Your task to perform on an android device: open app "Pluto TV - Live TV and Movies" (install if not already installed) Image 0: 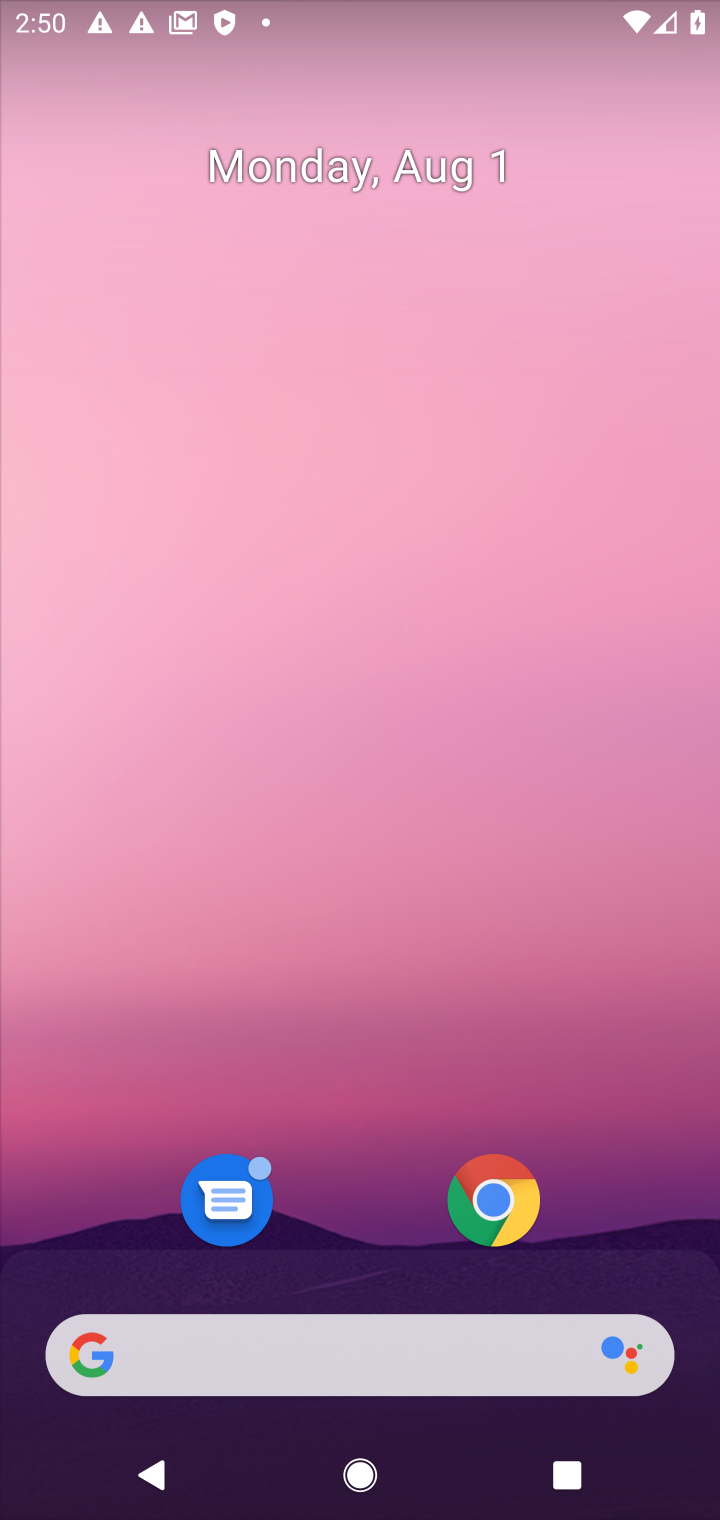
Step 0: drag from (391, 1258) to (472, 26)
Your task to perform on an android device: open app "Pluto TV - Live TV and Movies" (install if not already installed) Image 1: 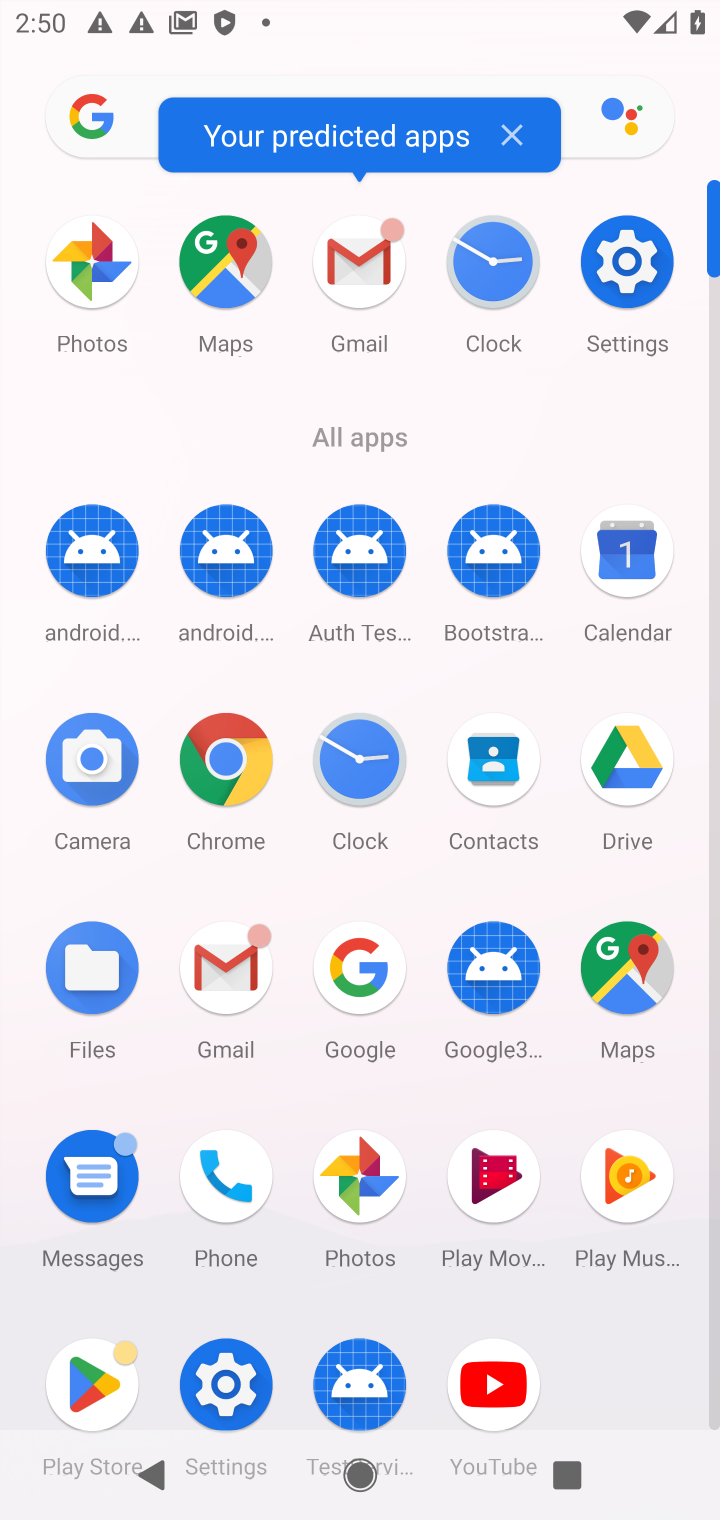
Step 1: click (82, 1368)
Your task to perform on an android device: open app "Pluto TV - Live TV and Movies" (install if not already installed) Image 2: 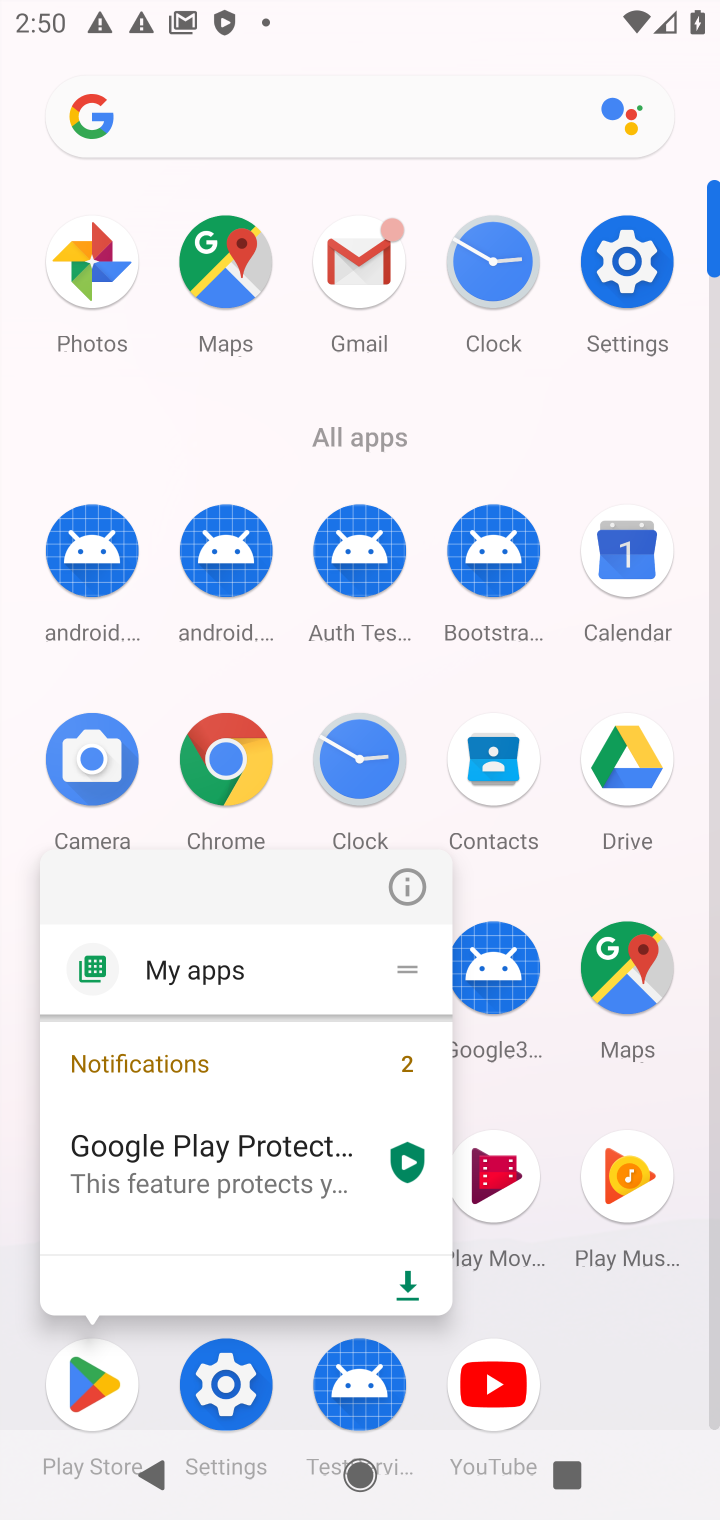
Step 2: click (75, 1380)
Your task to perform on an android device: open app "Pluto TV - Live TV and Movies" (install if not already installed) Image 3: 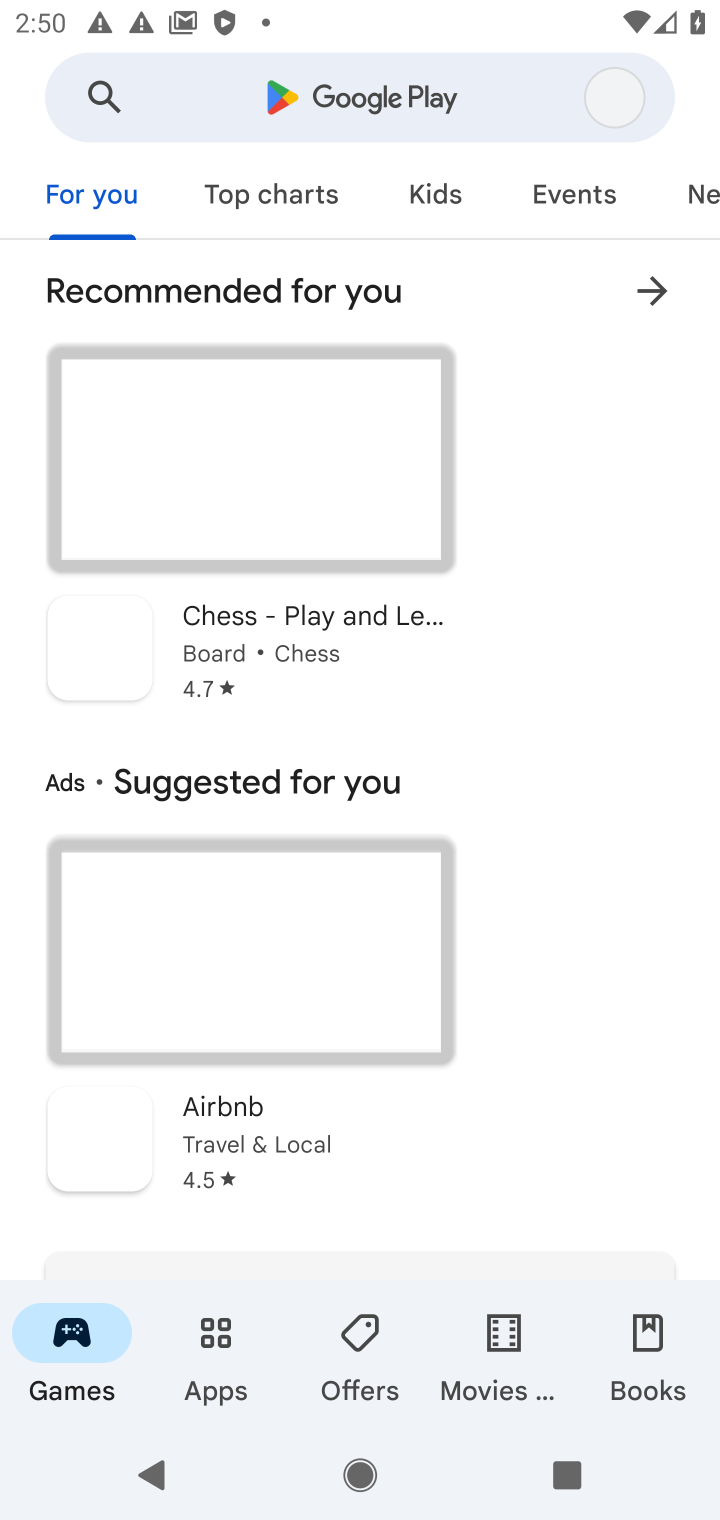
Step 3: click (359, 90)
Your task to perform on an android device: open app "Pluto TV - Live TV and Movies" (install if not already installed) Image 4: 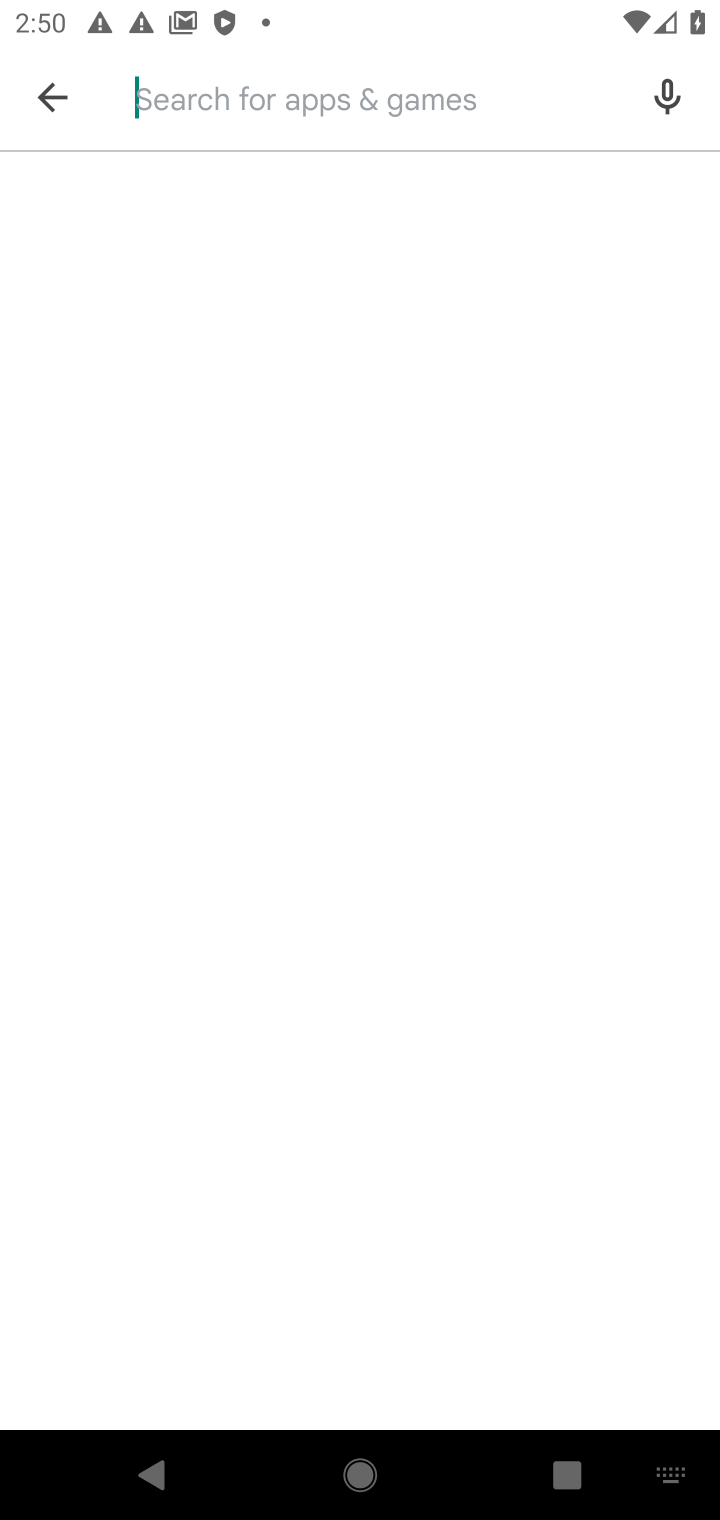
Step 4: type "pluto TV"
Your task to perform on an android device: open app "Pluto TV - Live TV and Movies" (install if not already installed) Image 5: 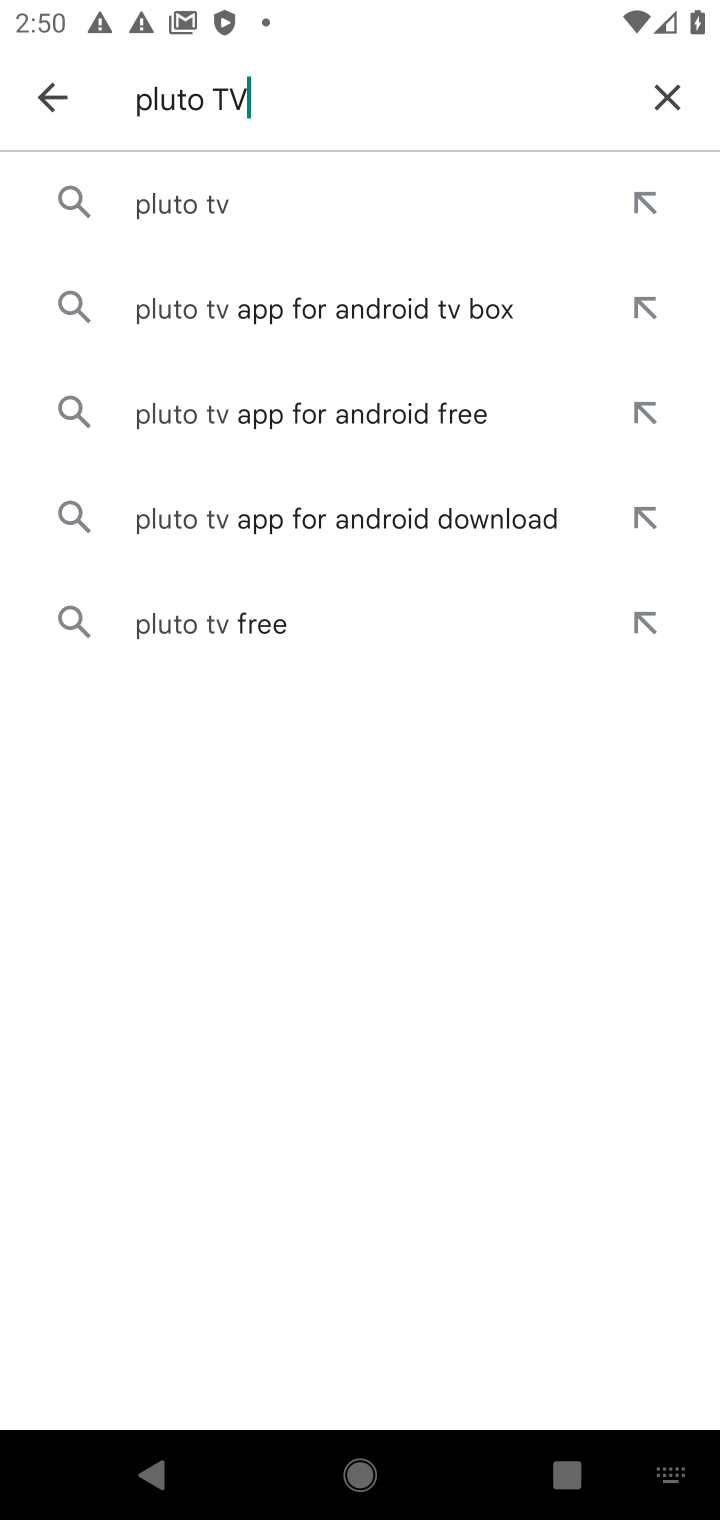
Step 5: click (177, 207)
Your task to perform on an android device: open app "Pluto TV - Live TV and Movies" (install if not already installed) Image 6: 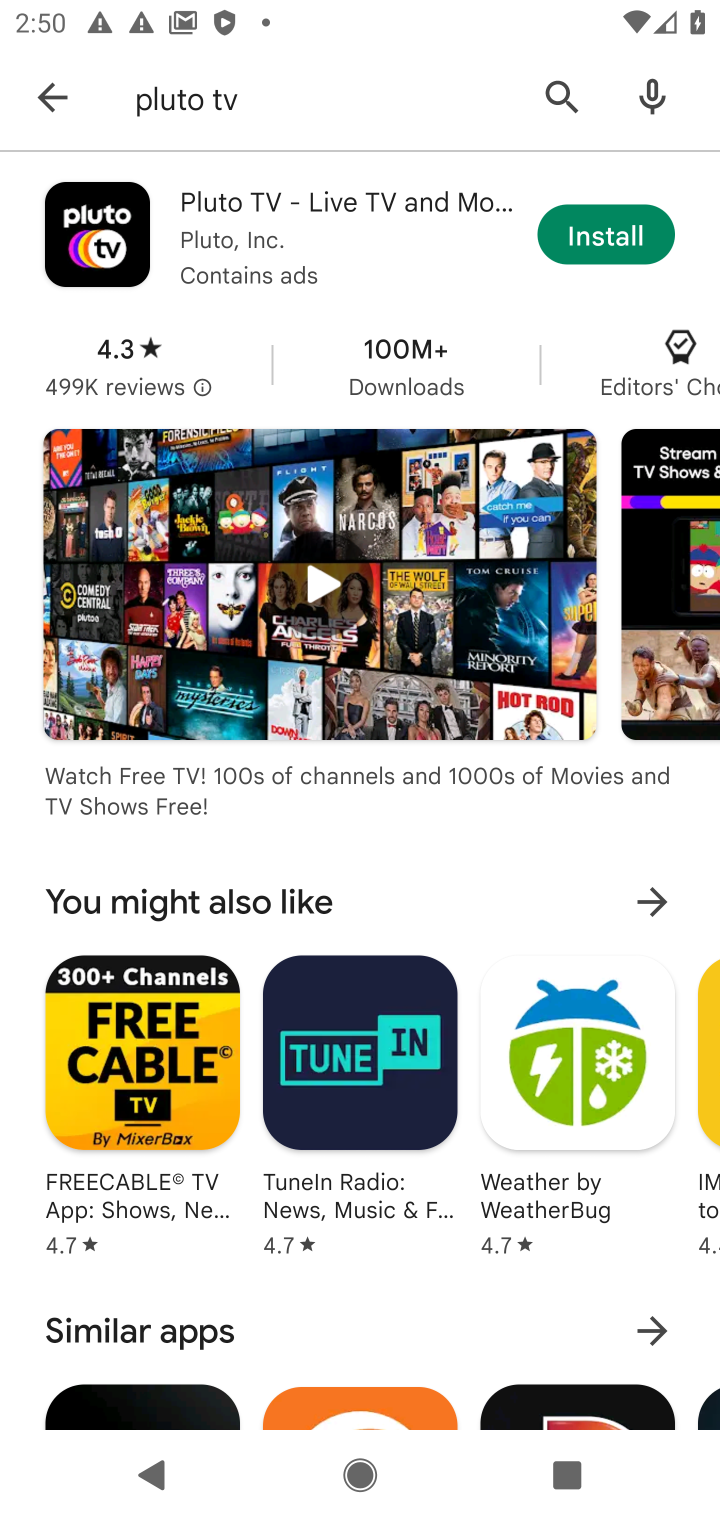
Step 6: click (638, 210)
Your task to perform on an android device: open app "Pluto TV - Live TV and Movies" (install if not already installed) Image 7: 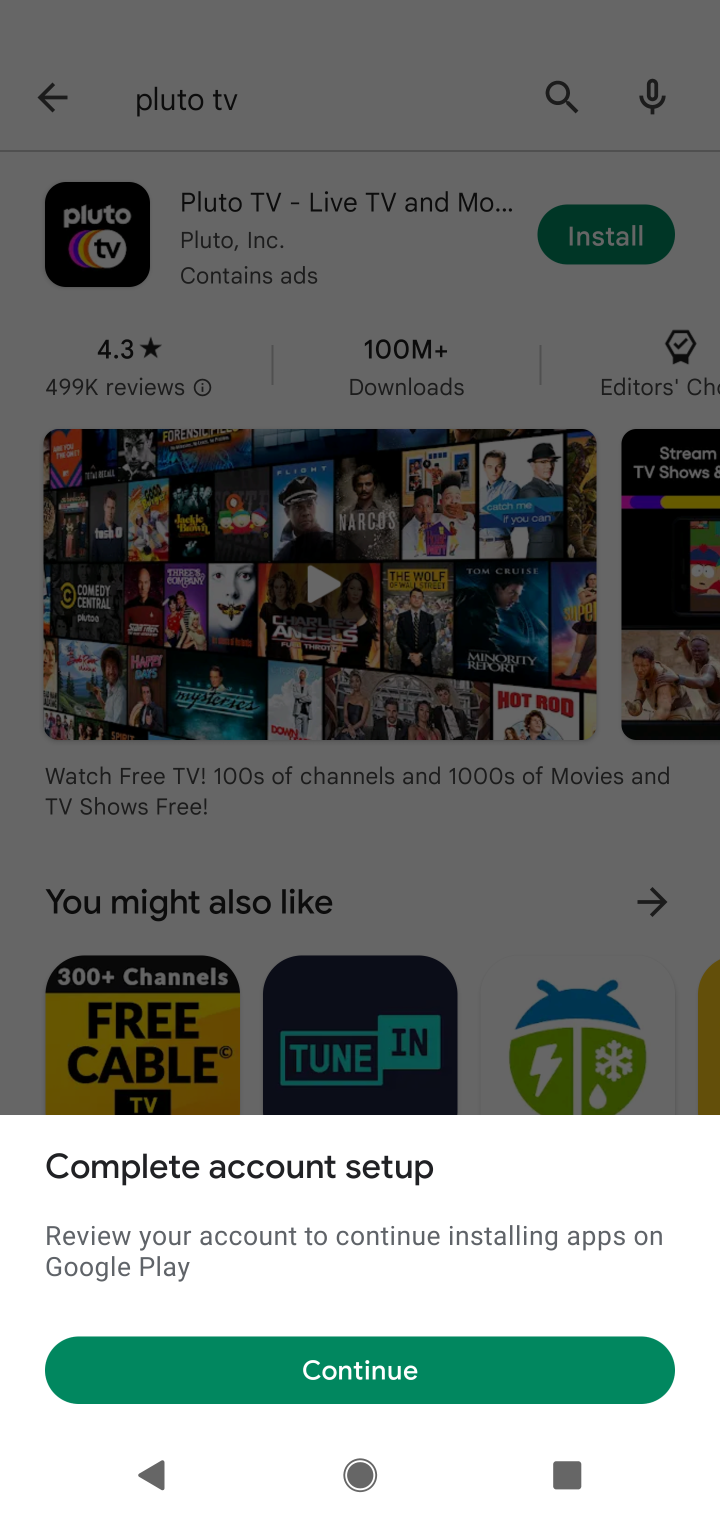
Step 7: click (287, 1370)
Your task to perform on an android device: open app "Pluto TV - Live TV and Movies" (install if not already installed) Image 8: 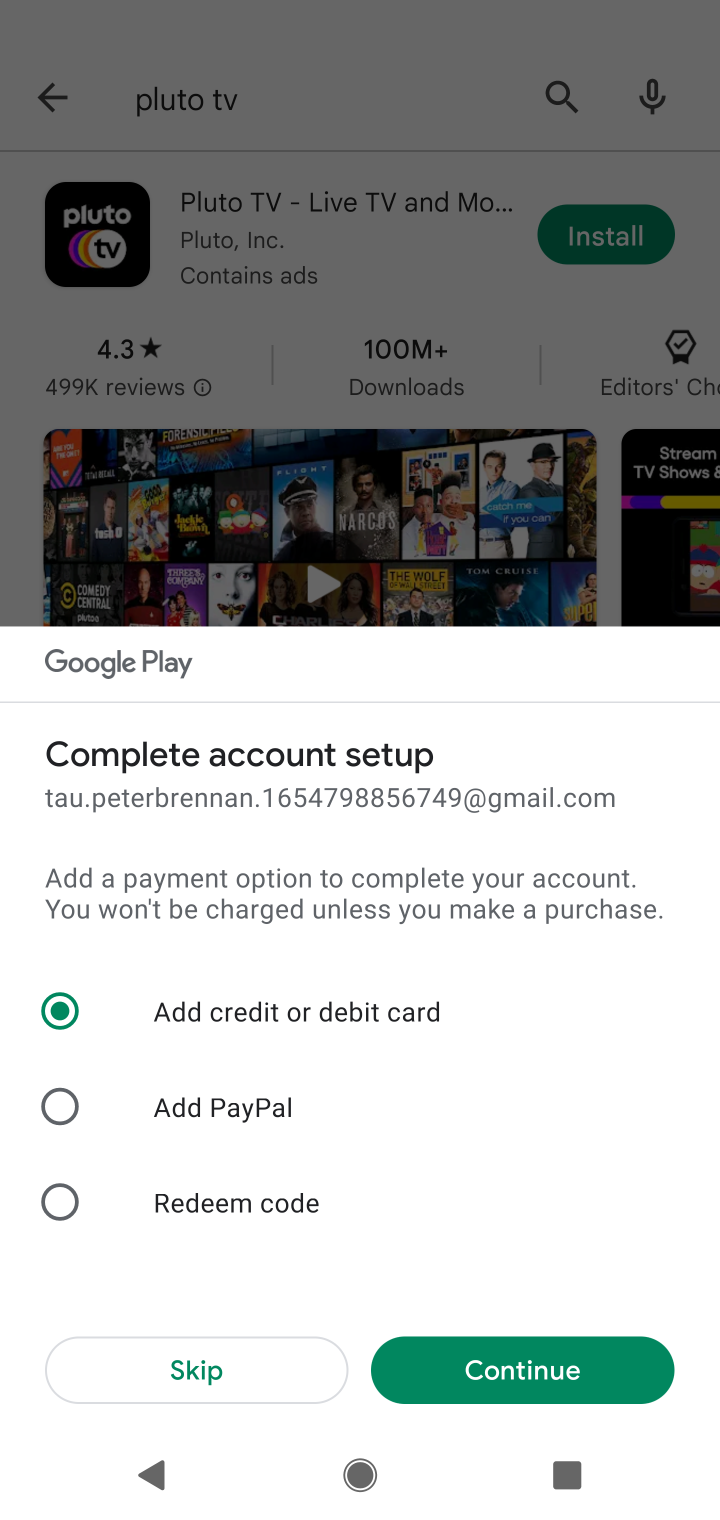
Step 8: click (217, 1361)
Your task to perform on an android device: open app "Pluto TV - Live TV and Movies" (install if not already installed) Image 9: 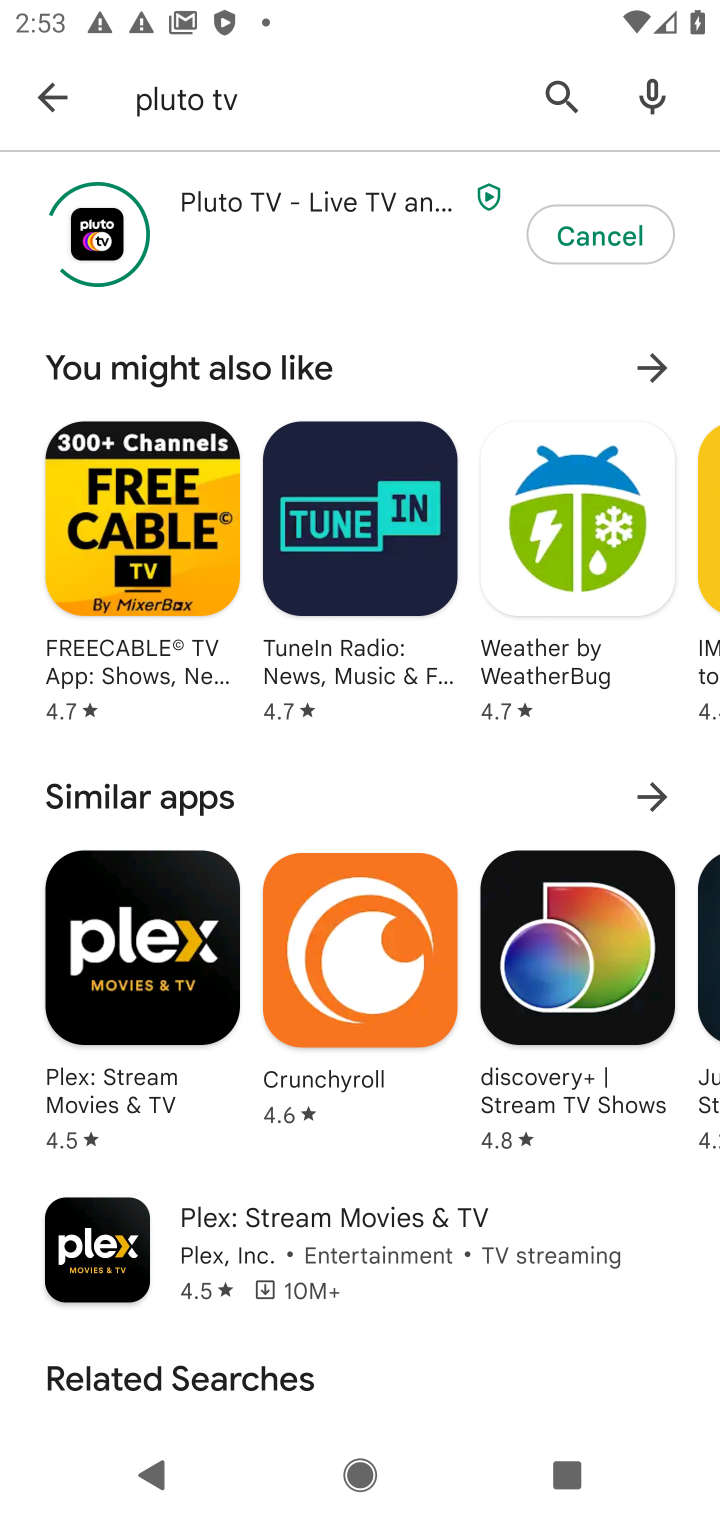
Step 9: click (298, 215)
Your task to perform on an android device: open app "Pluto TV - Live TV and Movies" (install if not already installed) Image 10: 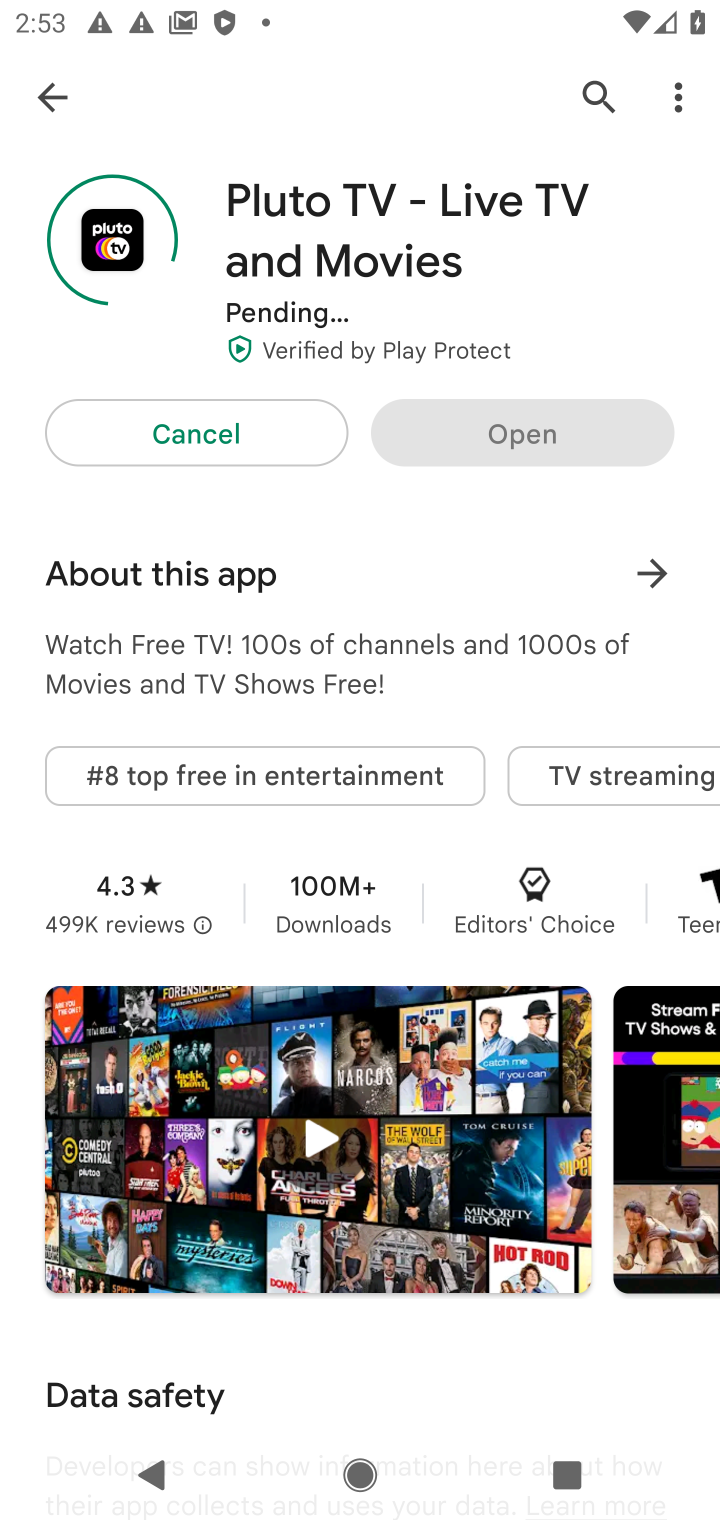
Step 10: click (64, 104)
Your task to perform on an android device: open app "Pluto TV - Live TV and Movies" (install if not already installed) Image 11: 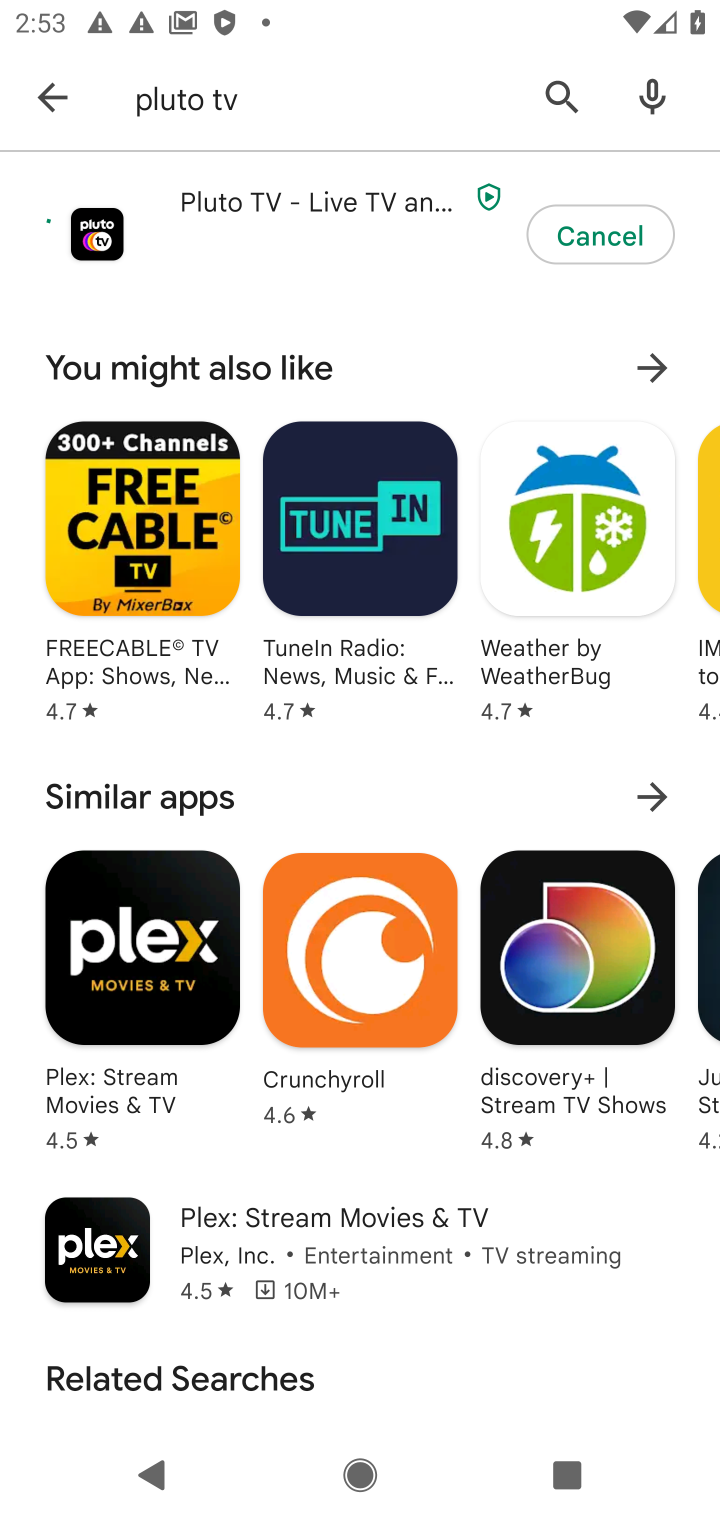
Step 11: click (50, 102)
Your task to perform on an android device: open app "Pluto TV - Live TV and Movies" (install if not already installed) Image 12: 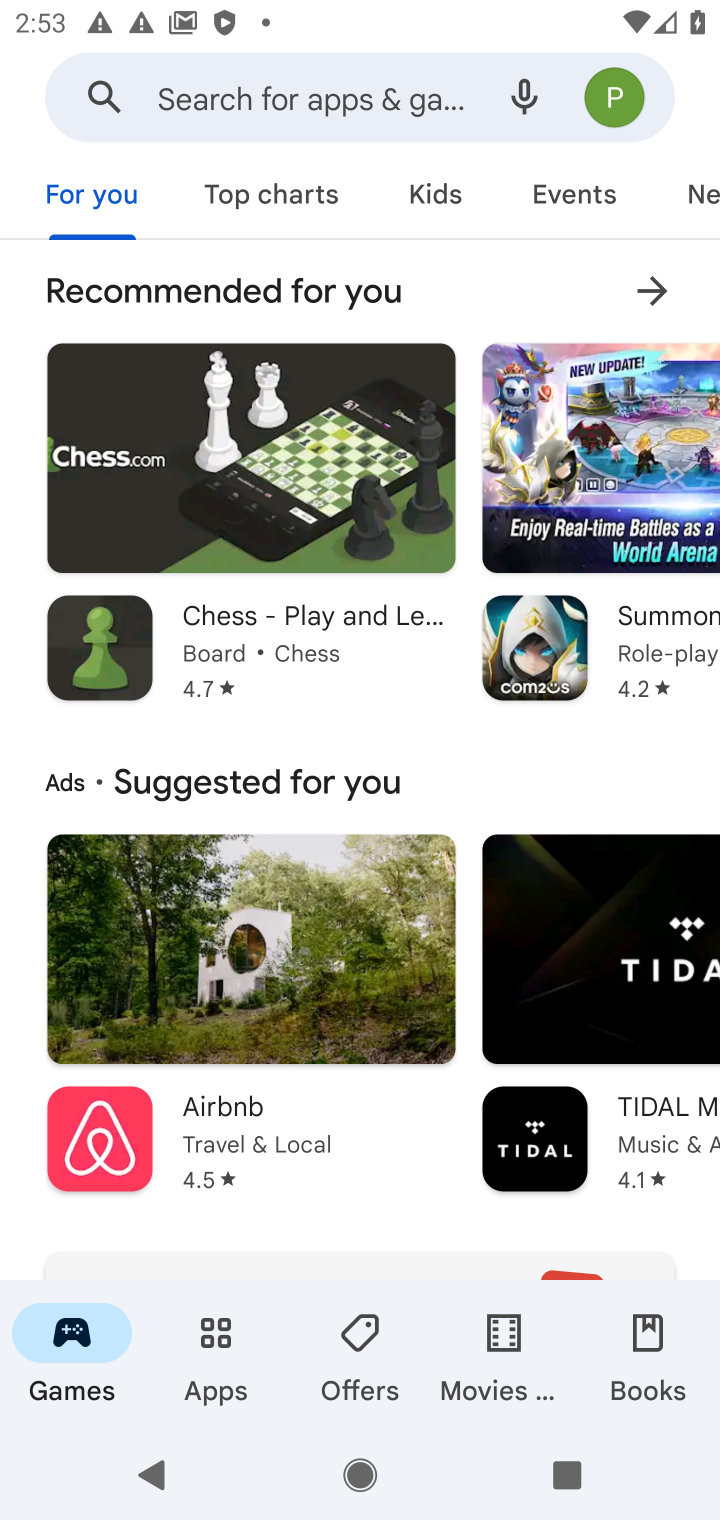
Step 12: click (624, 87)
Your task to perform on an android device: open app "Pluto TV - Live TV and Movies" (install if not already installed) Image 13: 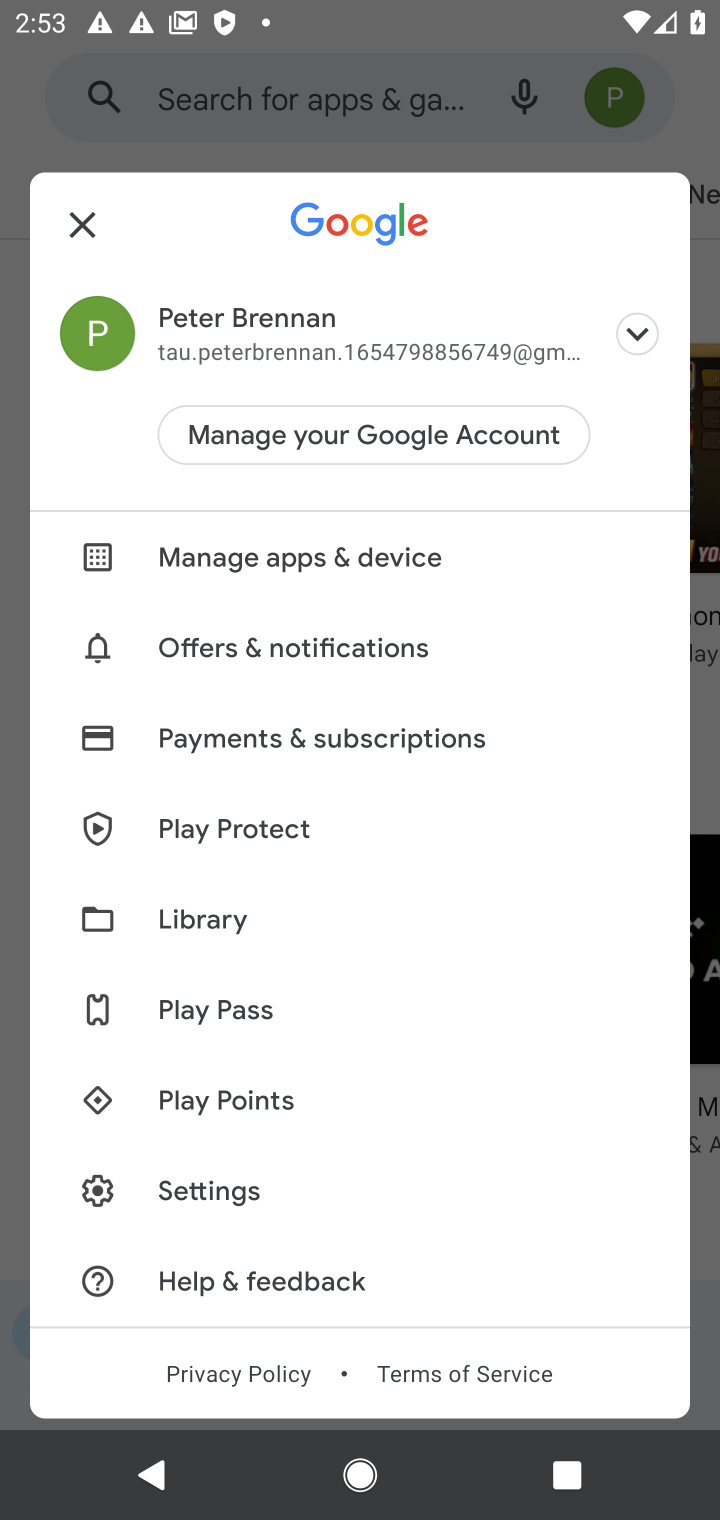
Step 13: click (257, 561)
Your task to perform on an android device: open app "Pluto TV - Live TV and Movies" (install if not already installed) Image 14: 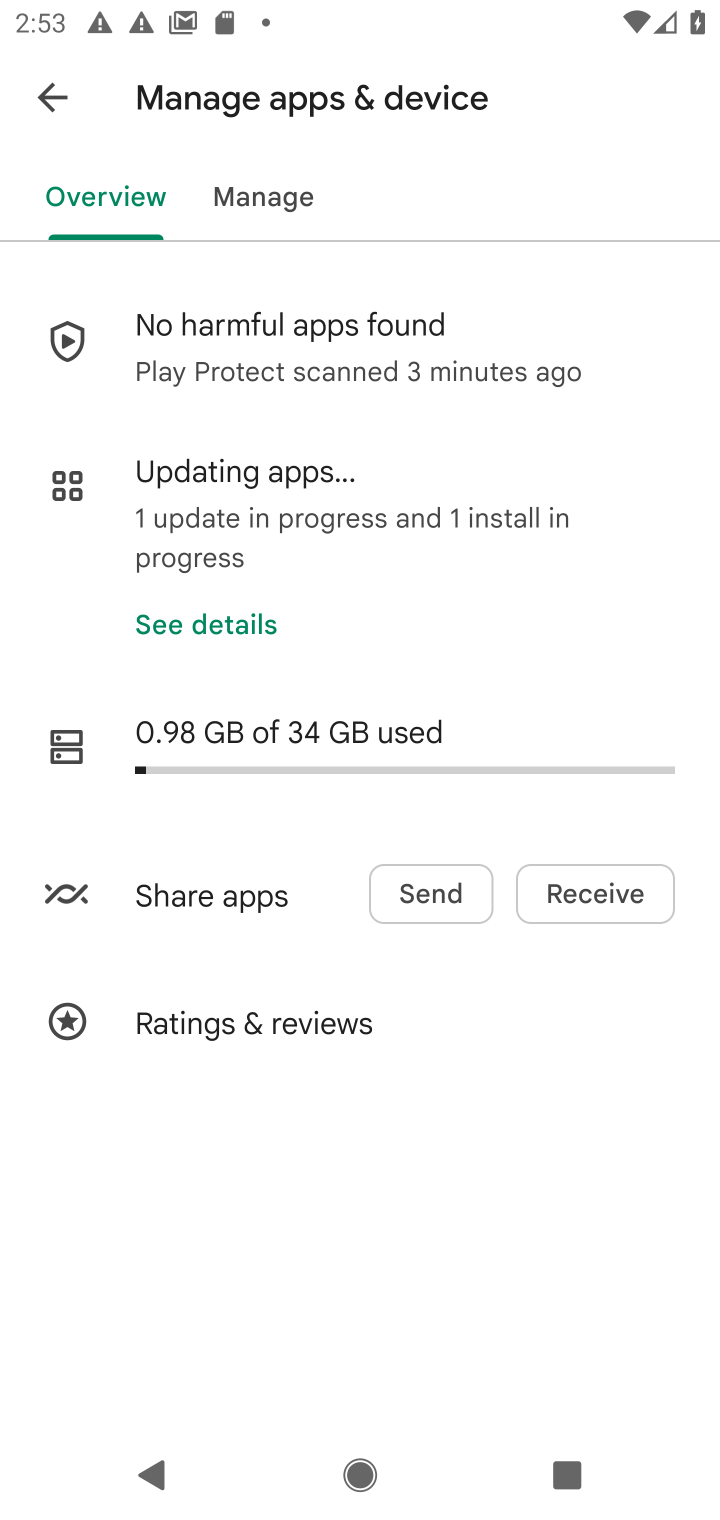
Step 14: click (252, 492)
Your task to perform on an android device: open app "Pluto TV - Live TV and Movies" (install if not already installed) Image 15: 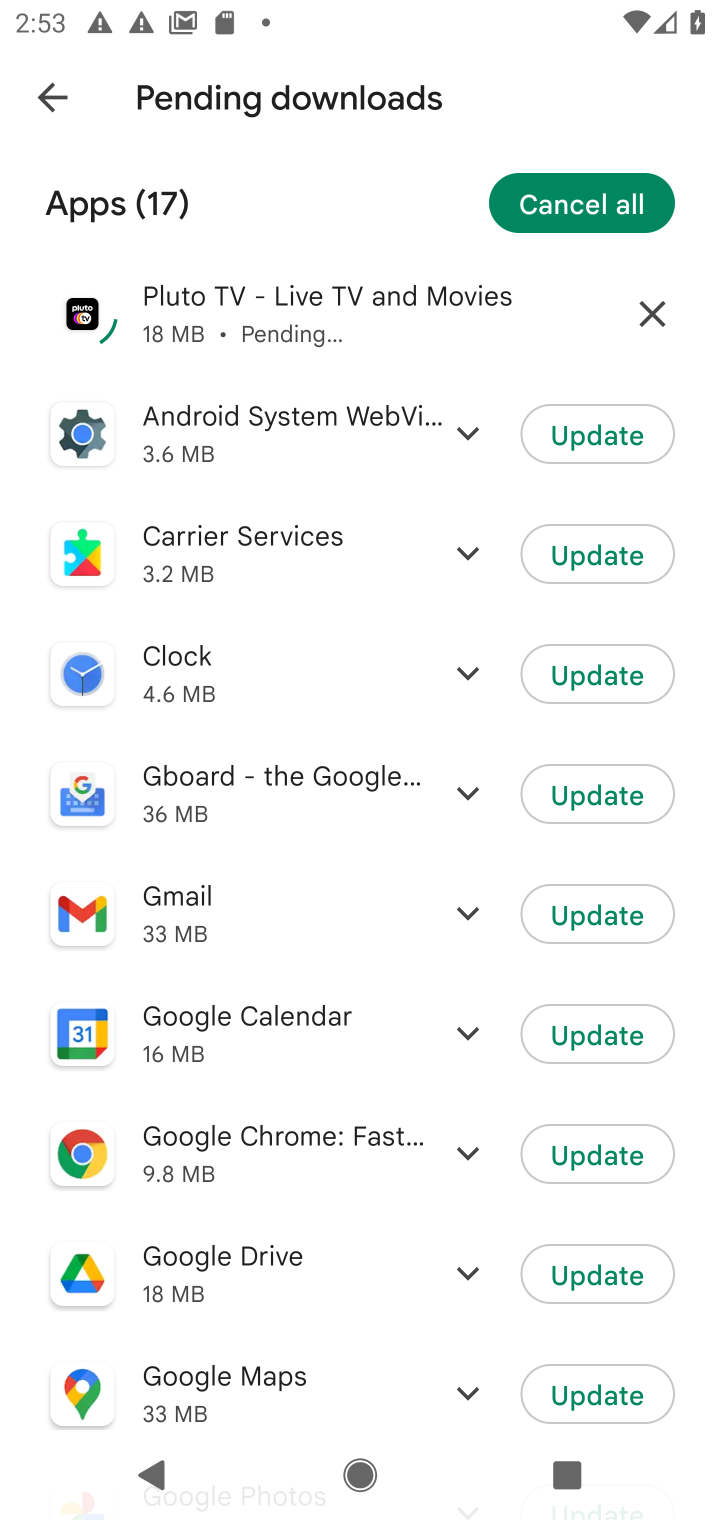
Step 15: drag from (262, 568) to (192, 1180)
Your task to perform on an android device: open app "Pluto TV - Live TV and Movies" (install if not already installed) Image 16: 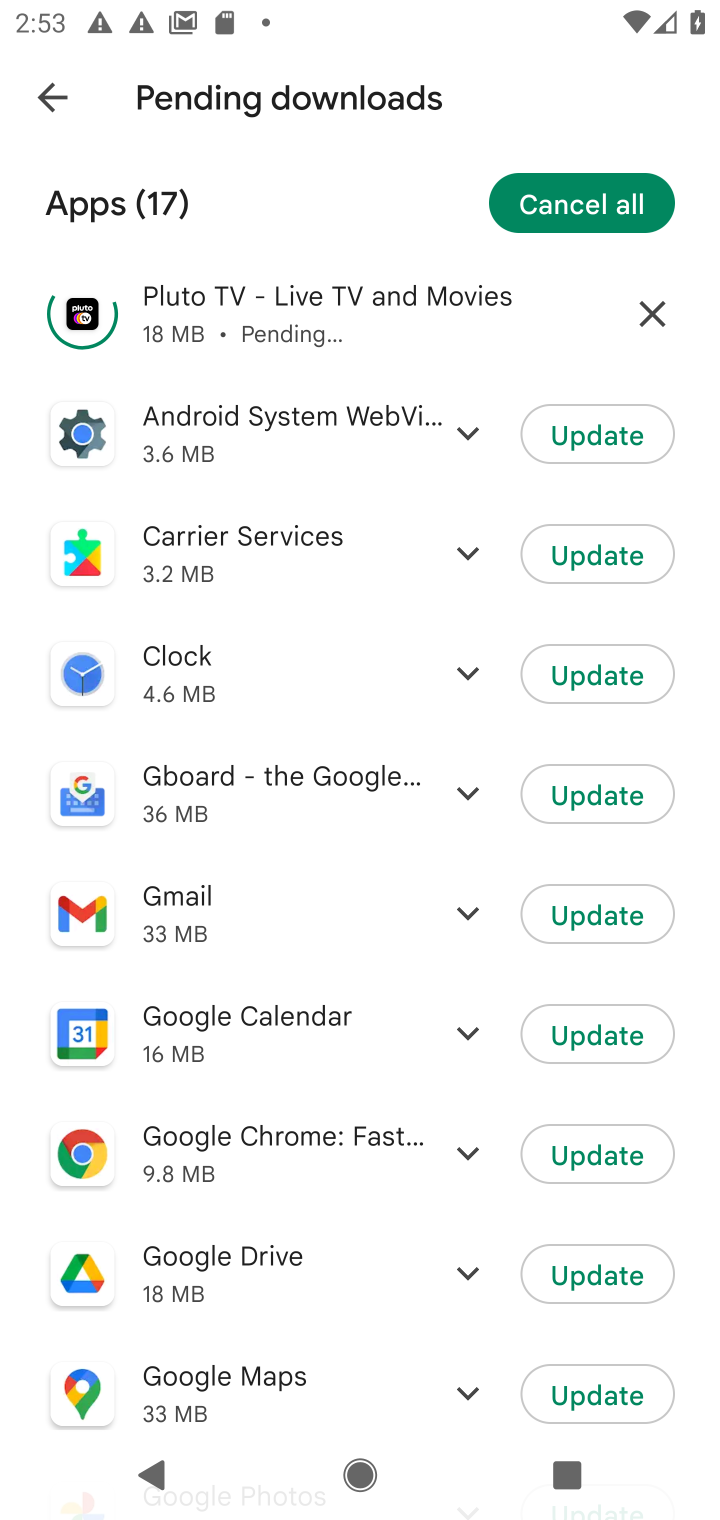
Step 16: drag from (245, 1194) to (408, 163)
Your task to perform on an android device: open app "Pluto TV - Live TV and Movies" (install if not already installed) Image 17: 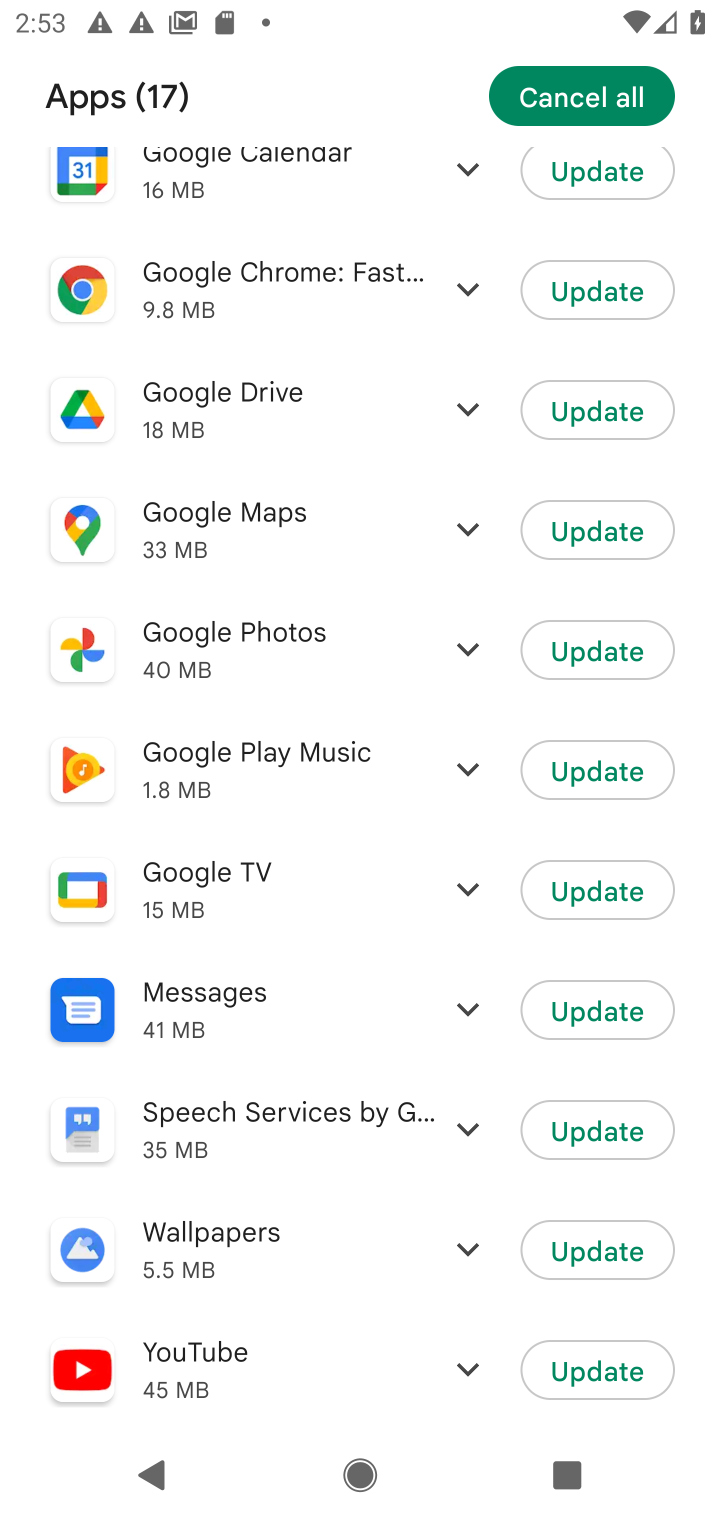
Step 17: drag from (320, 1269) to (388, 528)
Your task to perform on an android device: open app "Pluto TV - Live TV and Movies" (install if not already installed) Image 18: 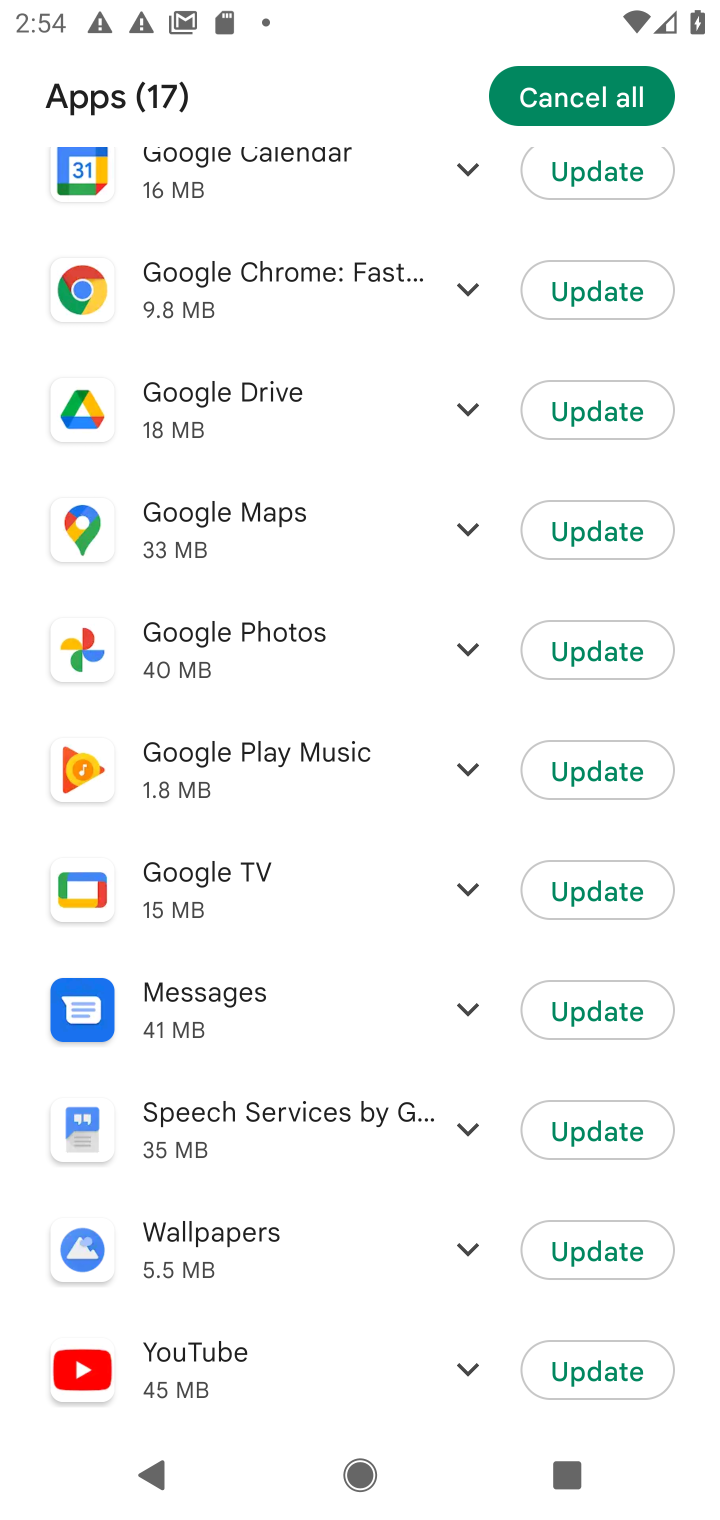
Step 18: drag from (350, 560) to (271, 1344)
Your task to perform on an android device: open app "Pluto TV - Live TV and Movies" (install if not already installed) Image 19: 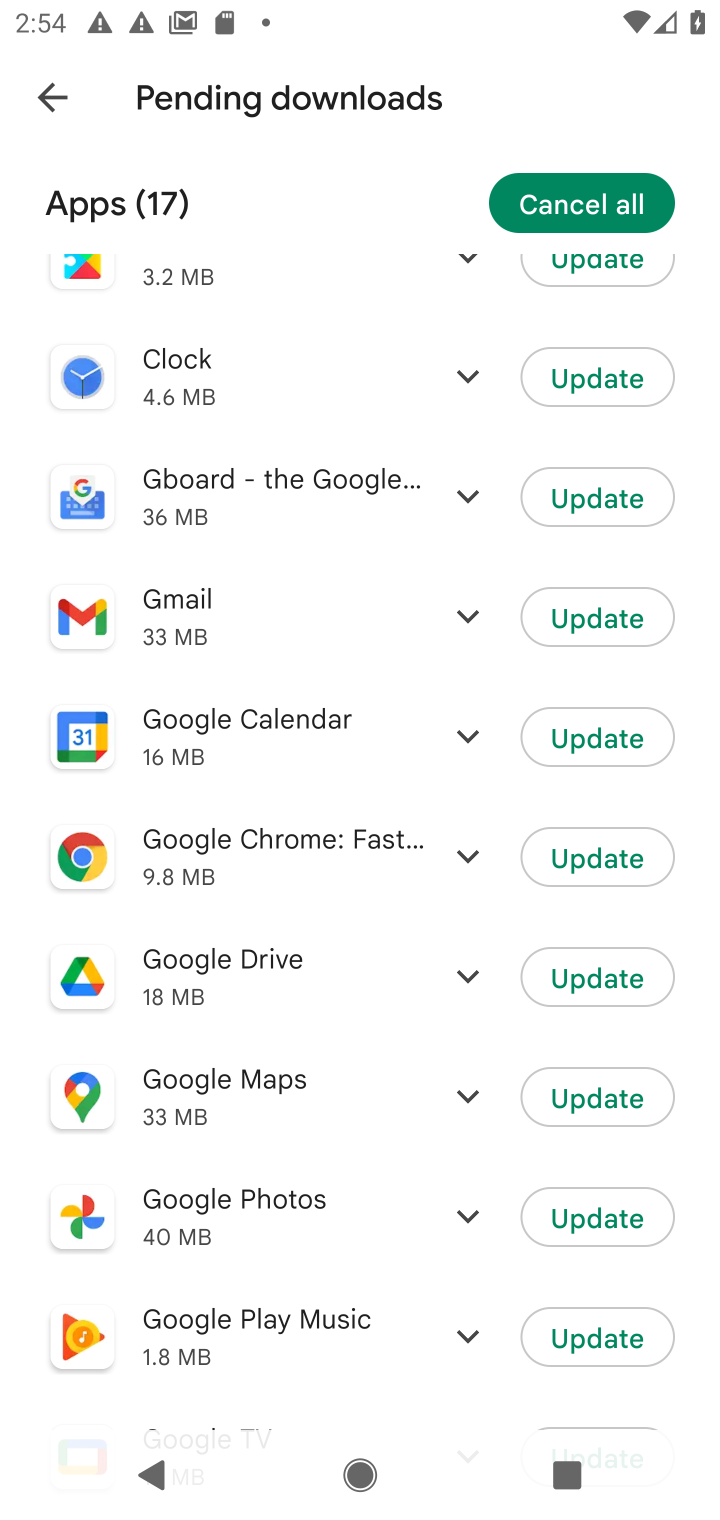
Step 19: drag from (280, 533) to (219, 1513)
Your task to perform on an android device: open app "Pluto TV - Live TV and Movies" (install if not already installed) Image 20: 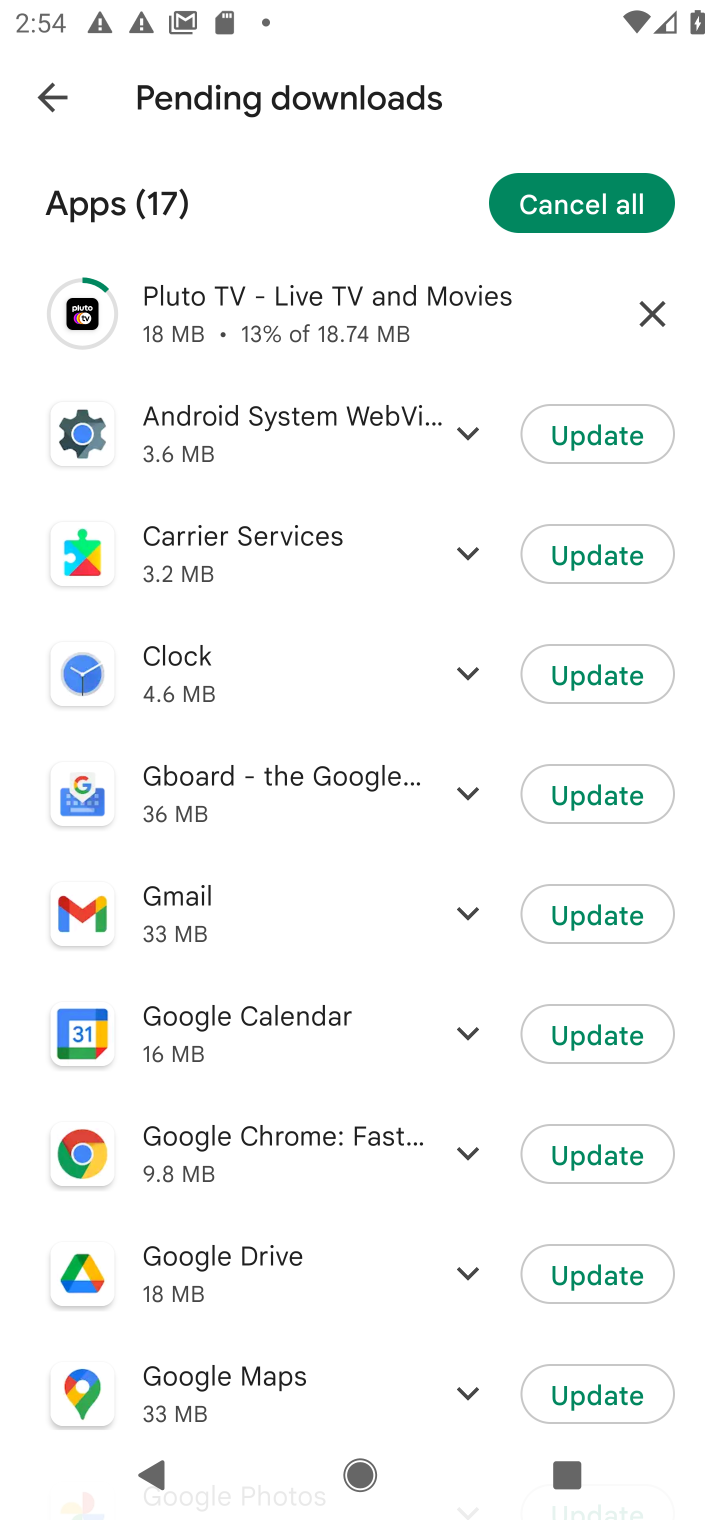
Step 20: click (314, 317)
Your task to perform on an android device: open app "Pluto TV - Live TV and Movies" (install if not already installed) Image 21: 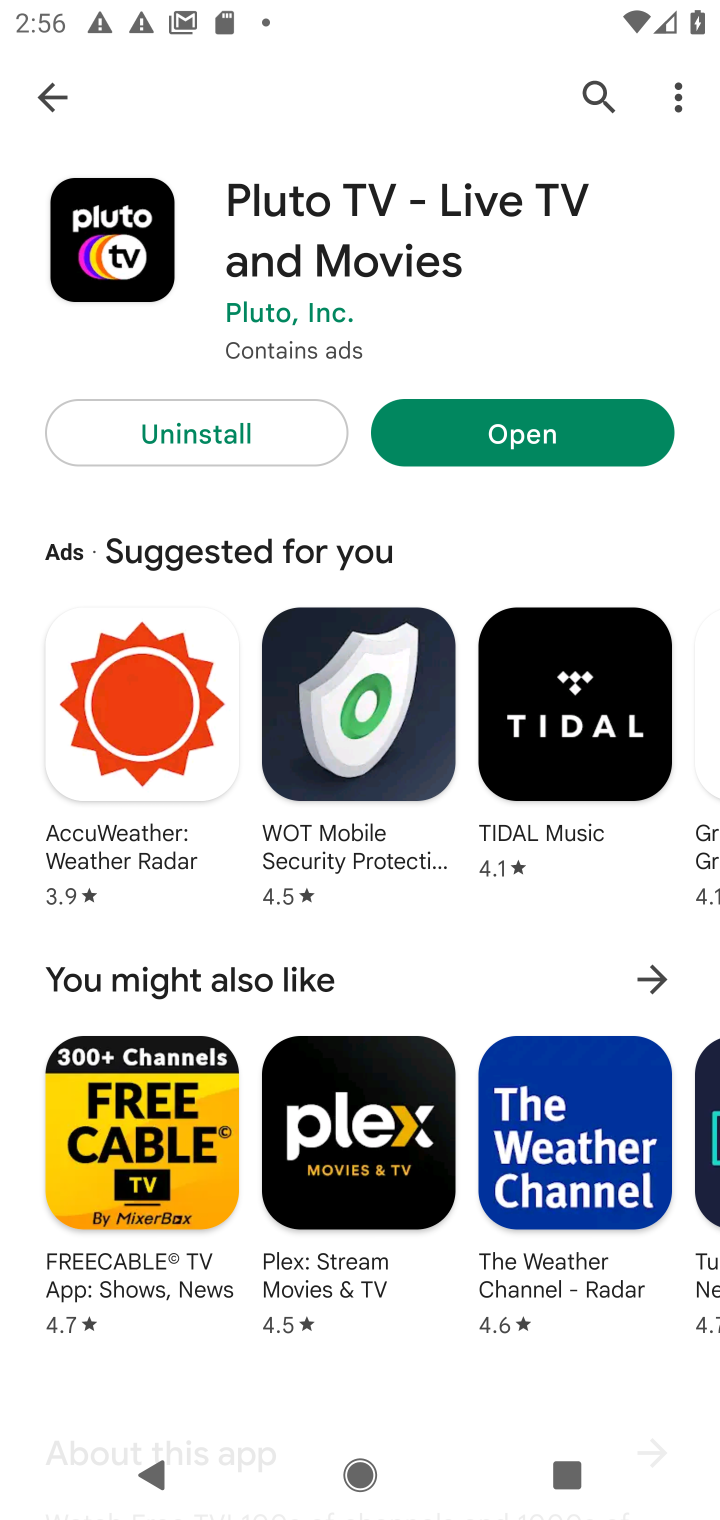
Step 21: click (579, 455)
Your task to perform on an android device: open app "Pluto TV - Live TV and Movies" (install if not already installed) Image 22: 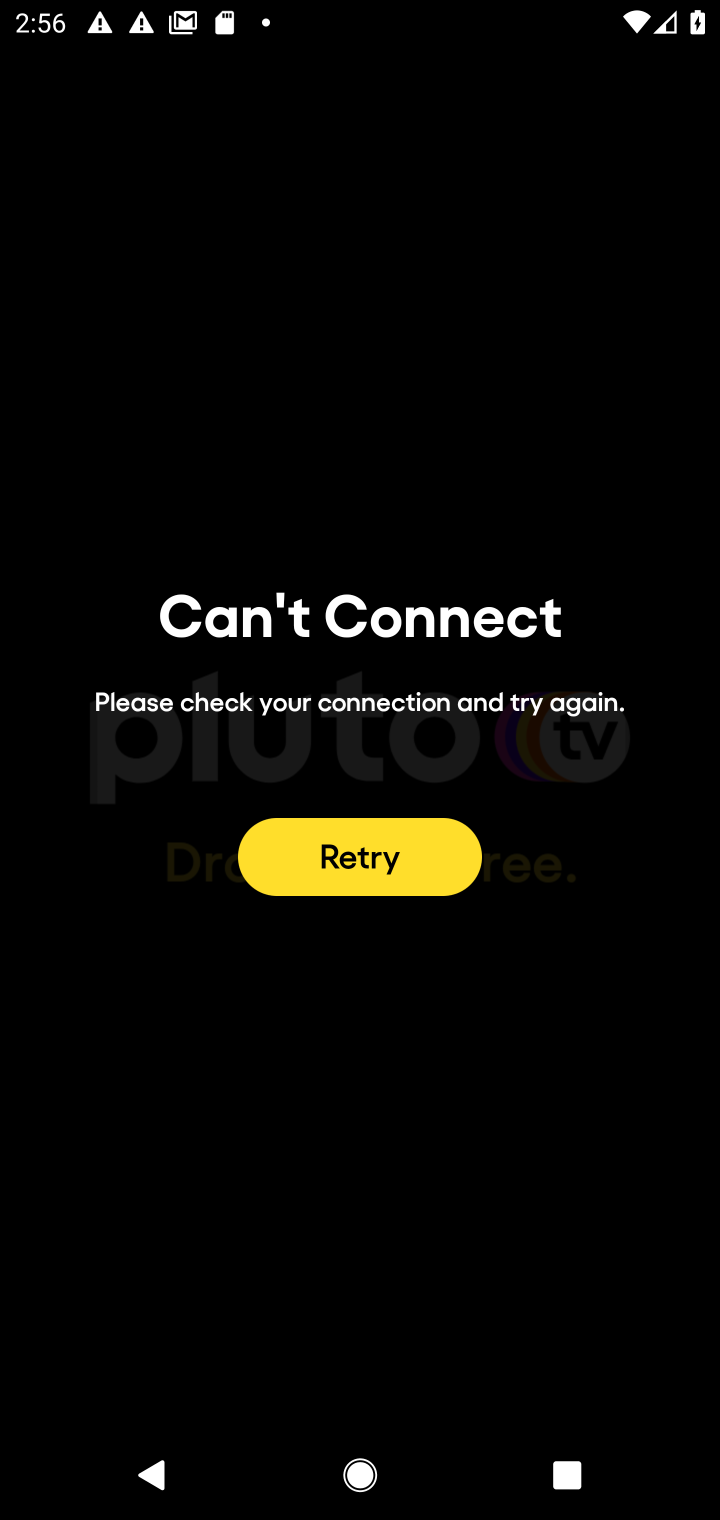
Step 22: click (414, 849)
Your task to perform on an android device: open app "Pluto TV - Live TV and Movies" (install if not already installed) Image 23: 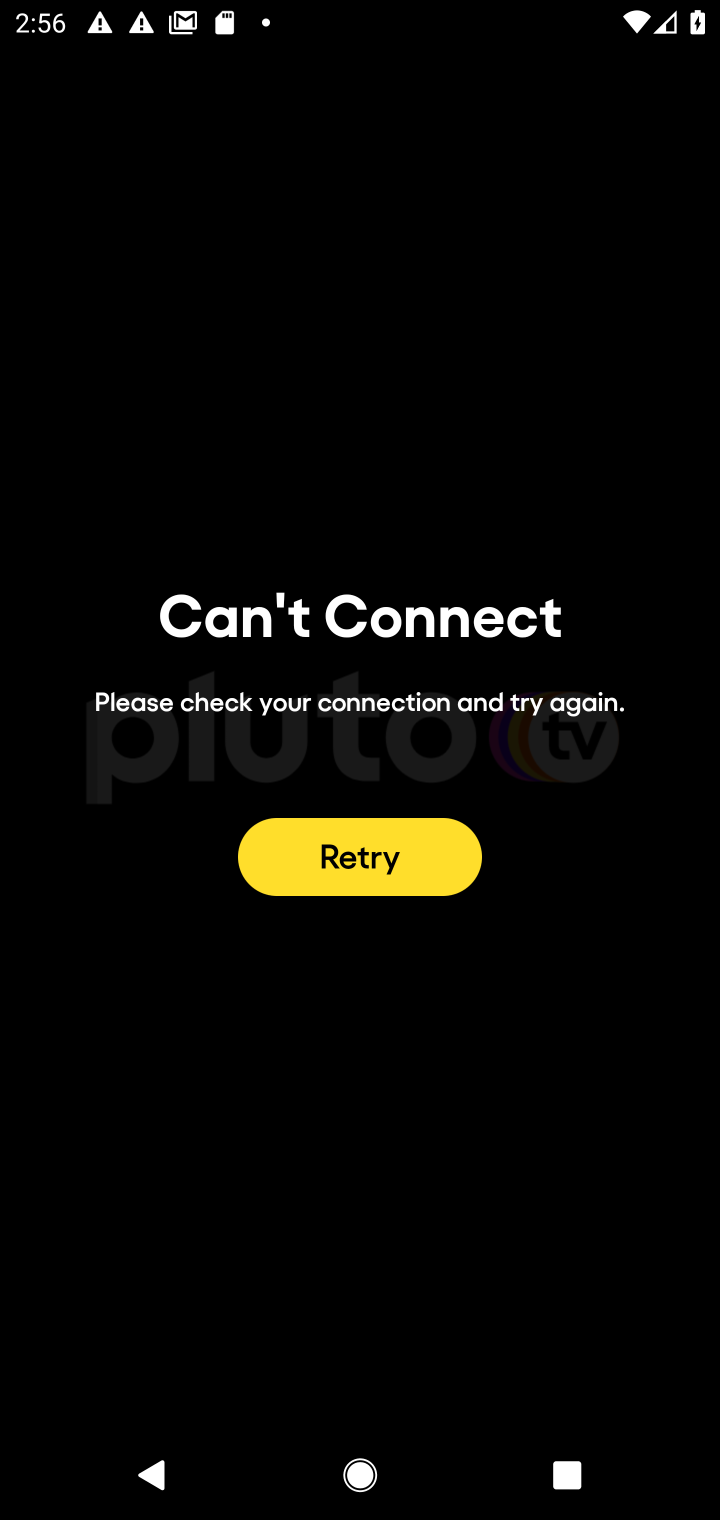
Step 23: task complete